Your task to perform on an android device: Go to Yahoo.com Image 0: 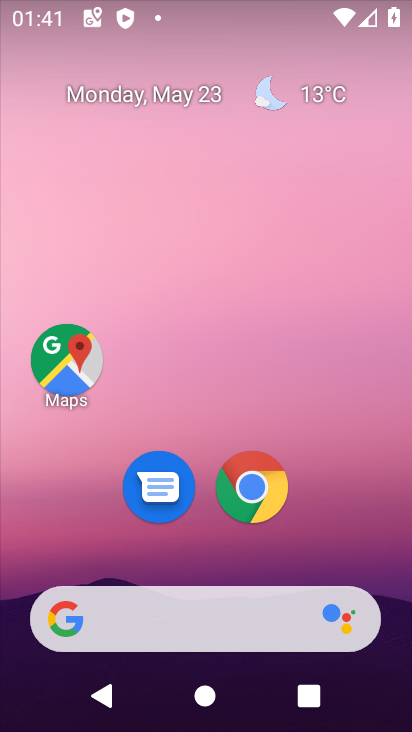
Step 0: click (246, 484)
Your task to perform on an android device: Go to Yahoo.com Image 1: 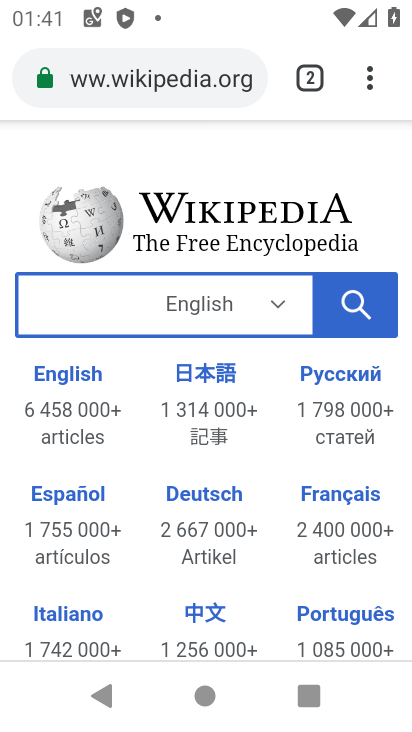
Step 1: click (150, 68)
Your task to perform on an android device: Go to Yahoo.com Image 2: 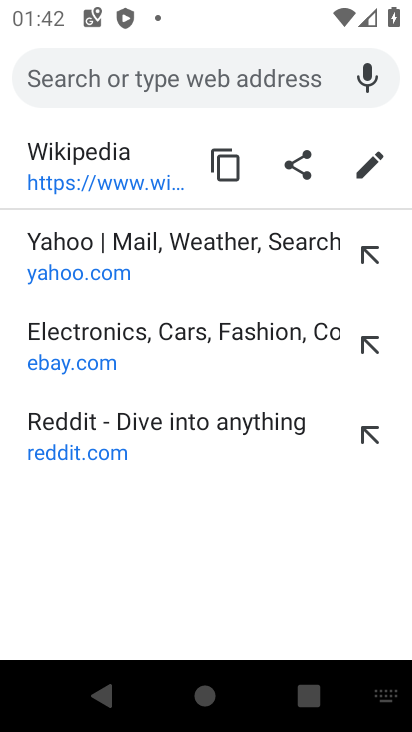
Step 2: type "yahoo.com"
Your task to perform on an android device: Go to Yahoo.com Image 3: 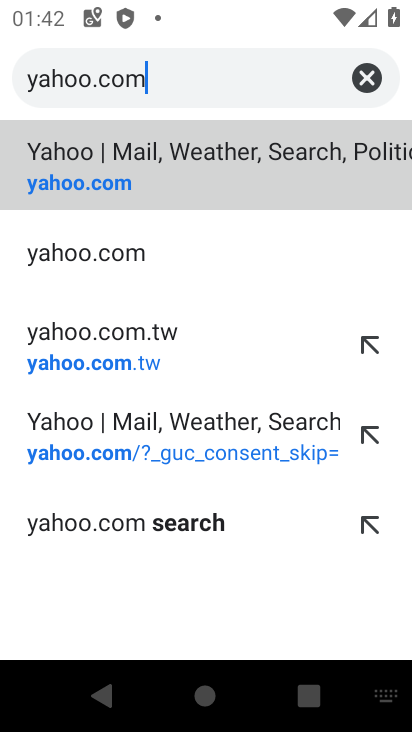
Step 3: click (62, 139)
Your task to perform on an android device: Go to Yahoo.com Image 4: 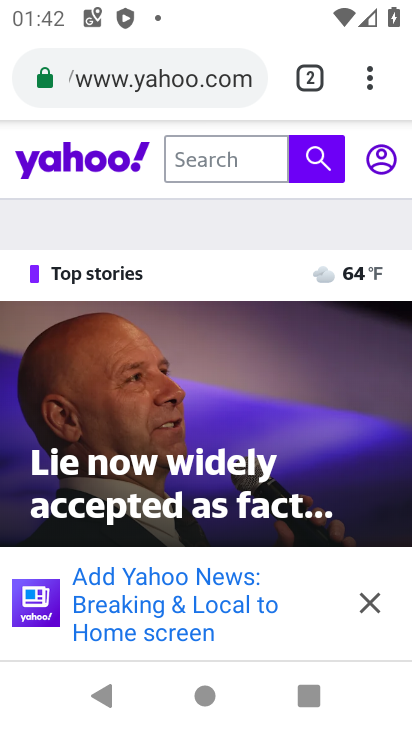
Step 4: task complete